Your task to perform on an android device: Go to battery settings Image 0: 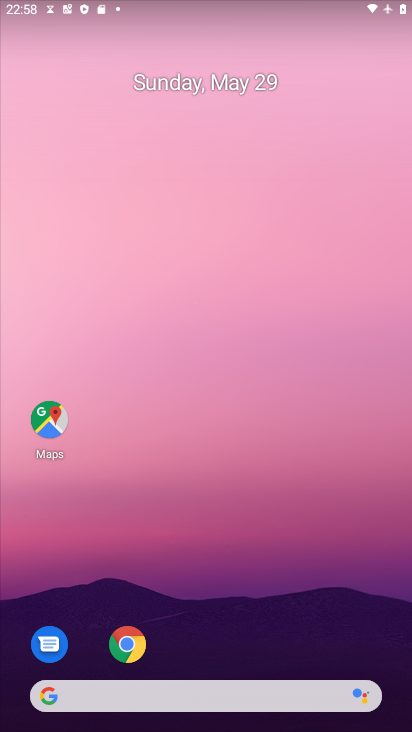
Step 0: drag from (264, 628) to (258, 261)
Your task to perform on an android device: Go to battery settings Image 1: 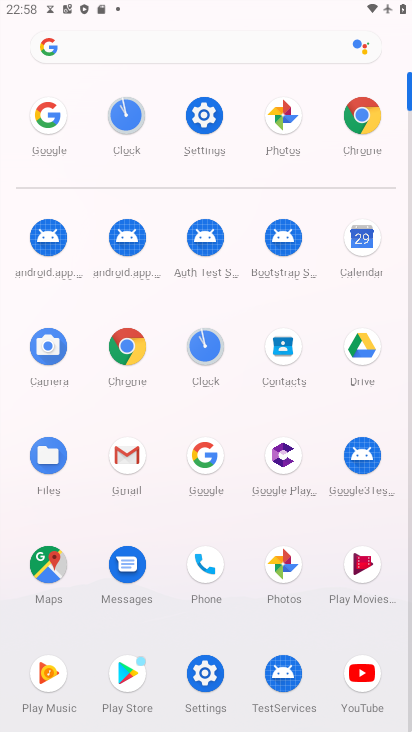
Step 1: click (197, 127)
Your task to perform on an android device: Go to battery settings Image 2: 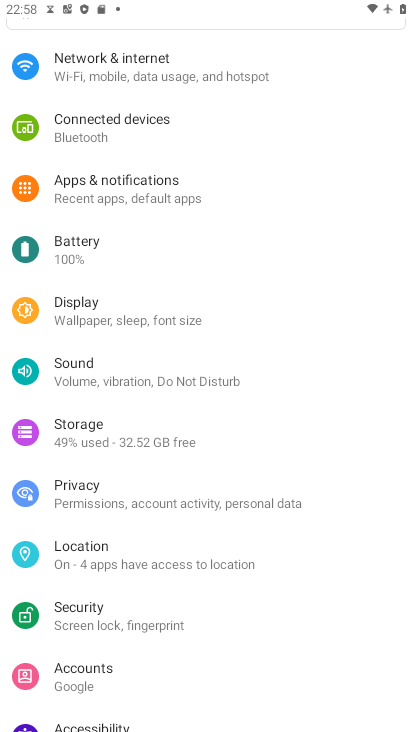
Step 2: click (110, 251)
Your task to perform on an android device: Go to battery settings Image 3: 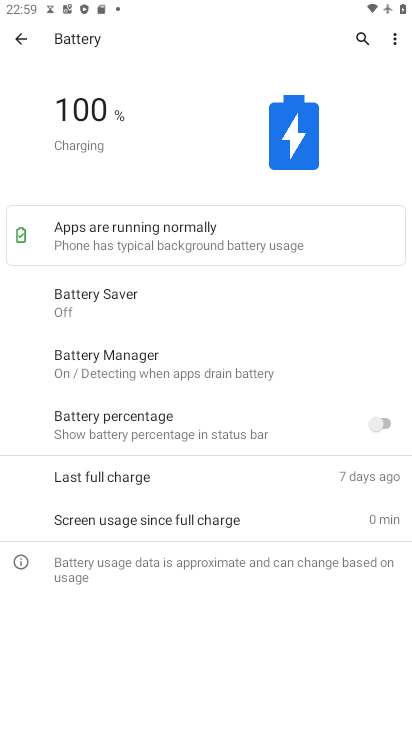
Step 3: task complete